Your task to perform on an android device: move a message to another label in the gmail app Image 0: 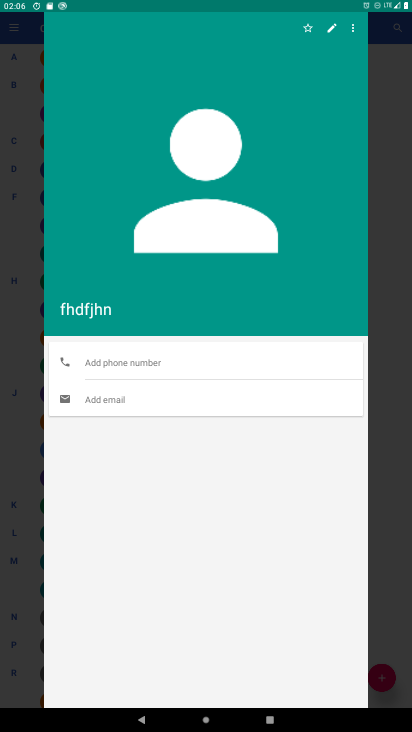
Step 0: press home button
Your task to perform on an android device: move a message to another label in the gmail app Image 1: 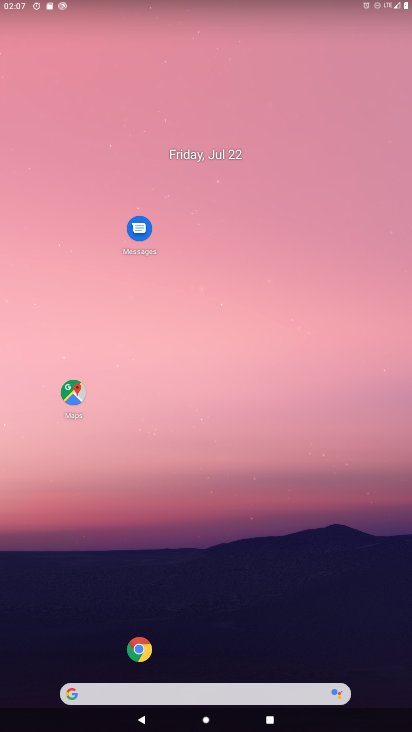
Step 1: drag from (26, 702) to (262, 212)
Your task to perform on an android device: move a message to another label in the gmail app Image 2: 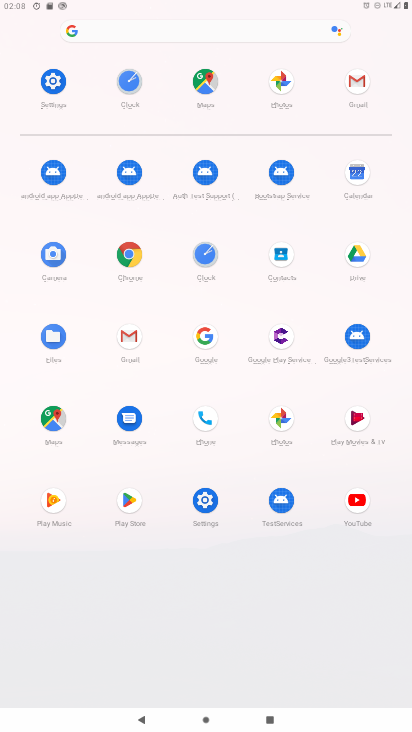
Step 2: click (136, 345)
Your task to perform on an android device: move a message to another label in the gmail app Image 3: 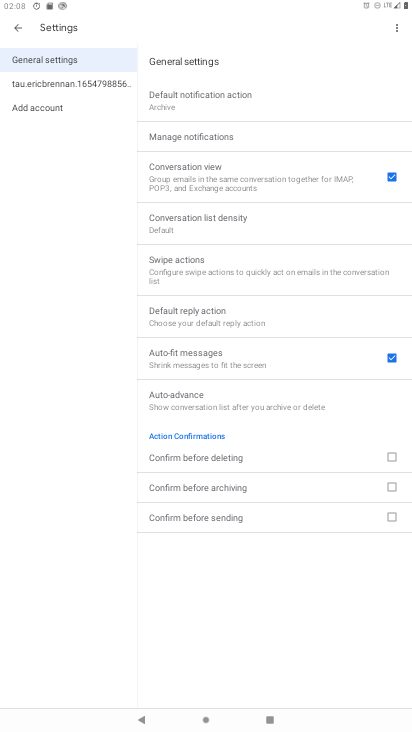
Step 3: click (21, 25)
Your task to perform on an android device: move a message to another label in the gmail app Image 4: 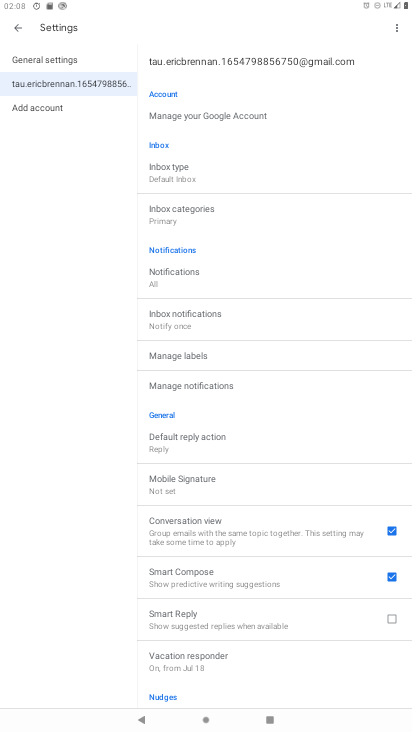
Step 4: press back button
Your task to perform on an android device: move a message to another label in the gmail app Image 5: 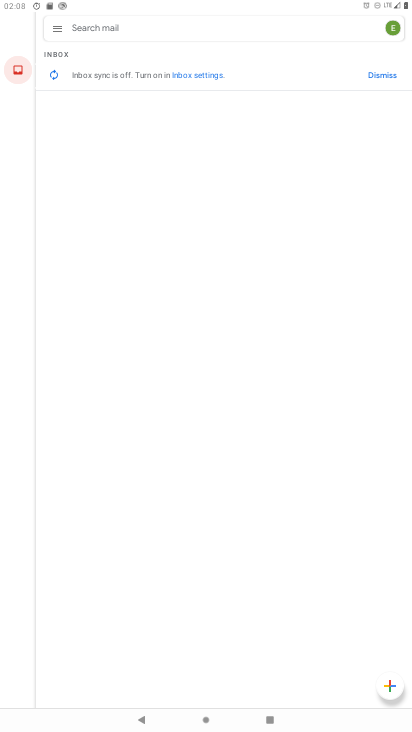
Step 5: click (53, 50)
Your task to perform on an android device: move a message to another label in the gmail app Image 6: 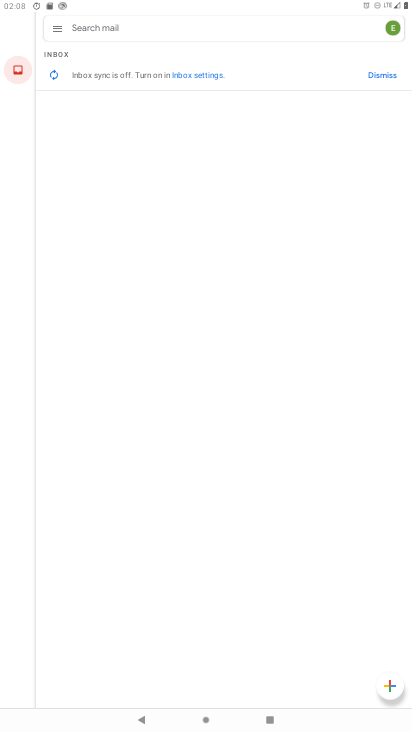
Step 6: click (59, 53)
Your task to perform on an android device: move a message to another label in the gmail app Image 7: 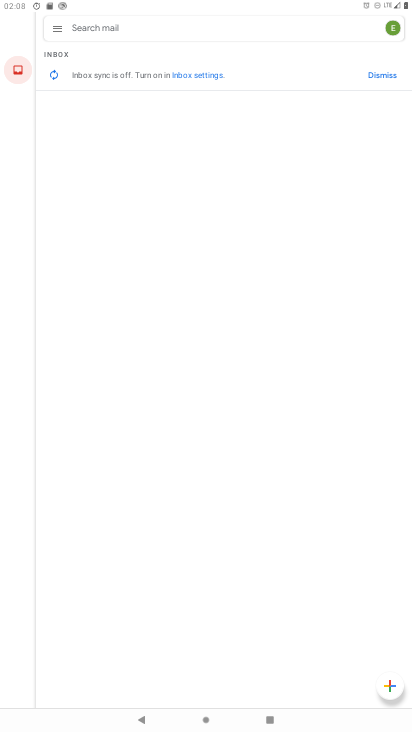
Step 7: task complete